Your task to perform on an android device: Go to Maps Image 0: 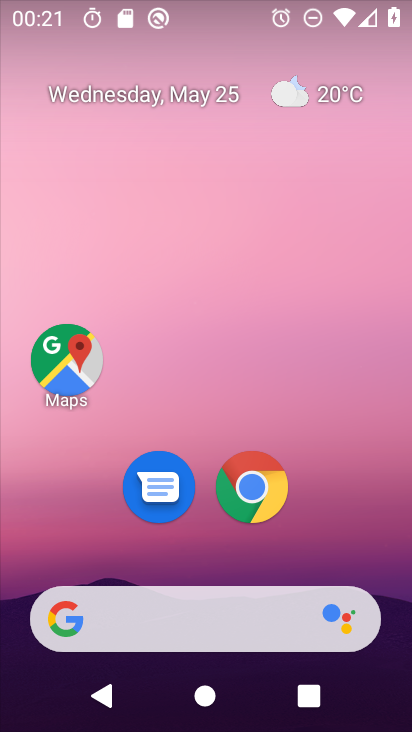
Step 0: click (64, 376)
Your task to perform on an android device: Go to Maps Image 1: 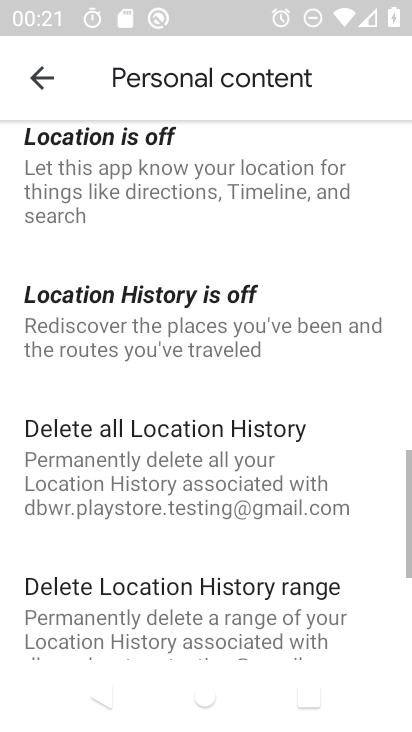
Step 1: click (38, 85)
Your task to perform on an android device: Go to Maps Image 2: 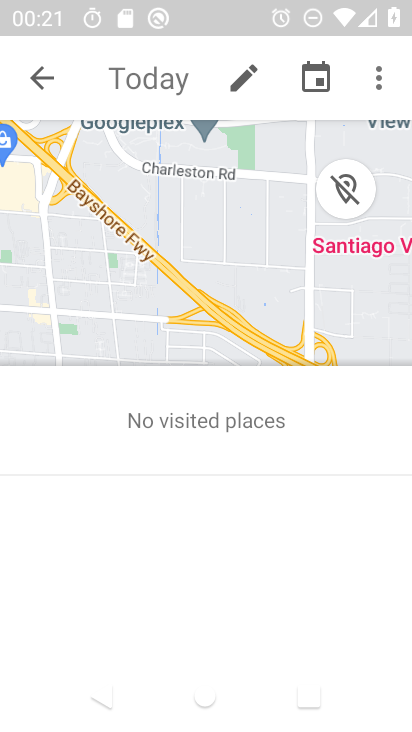
Step 2: click (38, 85)
Your task to perform on an android device: Go to Maps Image 3: 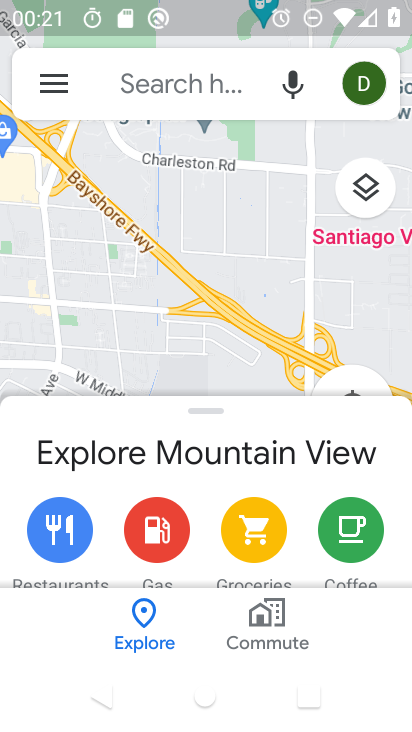
Step 3: task complete